Your task to perform on an android device: empty trash in google photos Image 0: 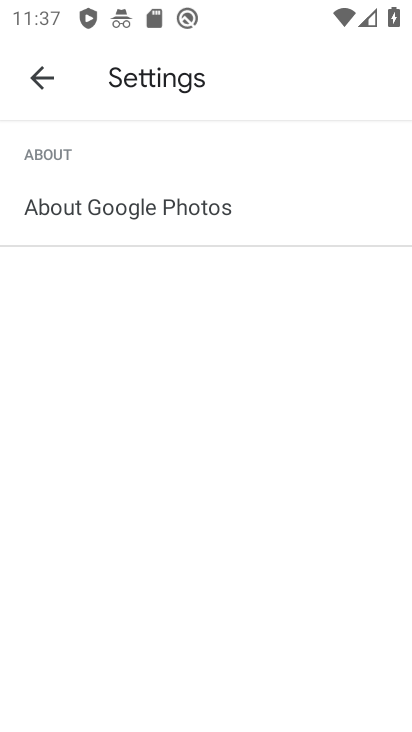
Step 0: click (43, 65)
Your task to perform on an android device: empty trash in google photos Image 1: 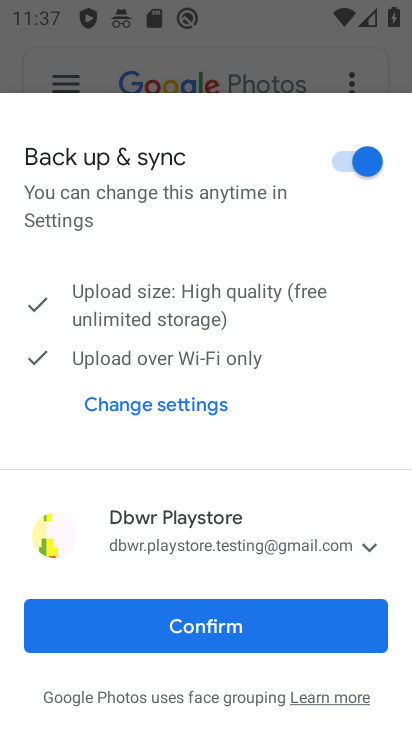
Step 1: click (209, 626)
Your task to perform on an android device: empty trash in google photos Image 2: 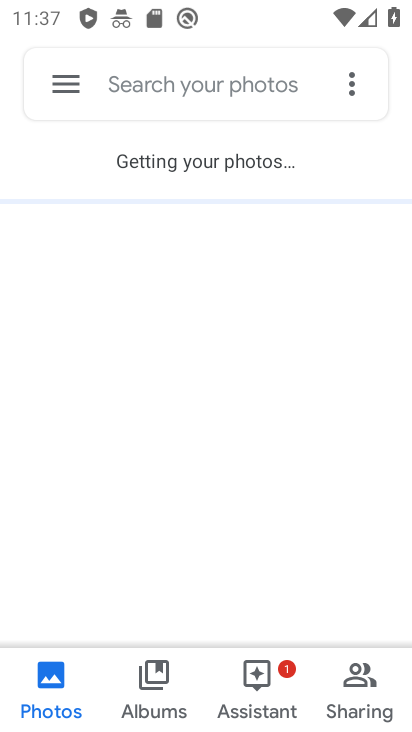
Step 2: click (56, 84)
Your task to perform on an android device: empty trash in google photos Image 3: 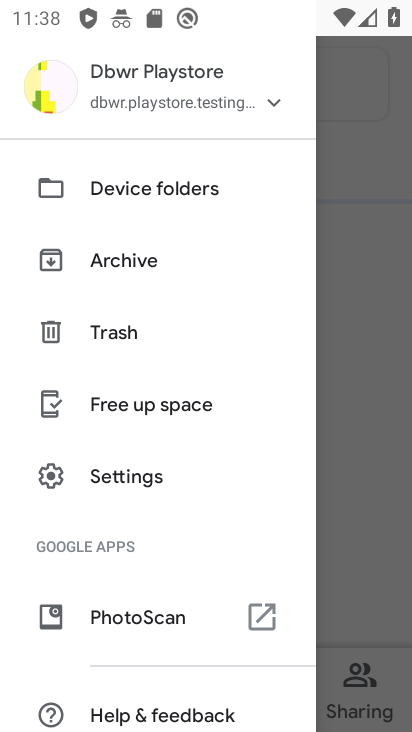
Step 3: click (103, 327)
Your task to perform on an android device: empty trash in google photos Image 4: 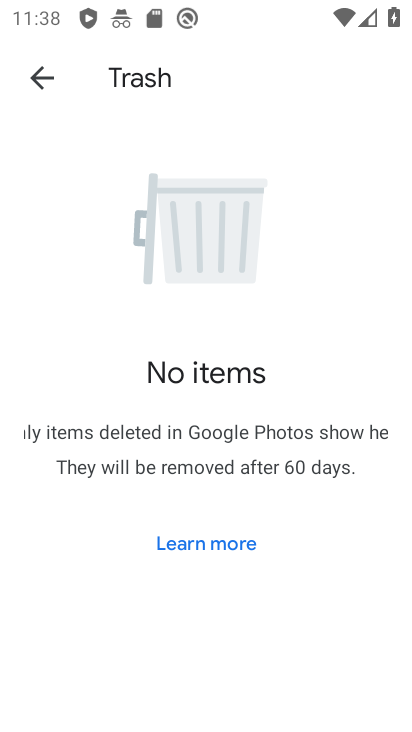
Step 4: task complete